Your task to perform on an android device: Open Google Image 0: 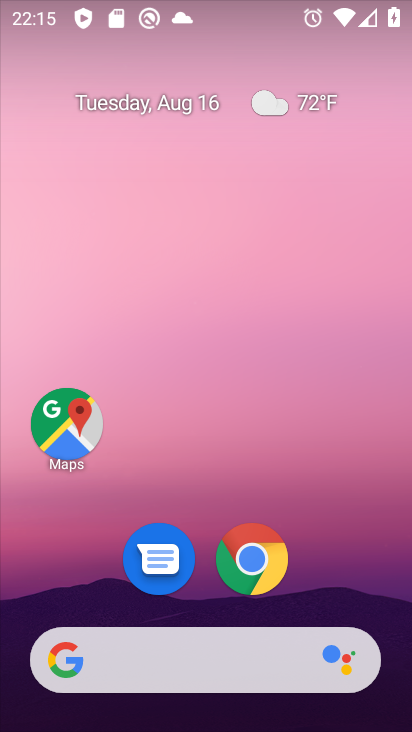
Step 0: drag from (190, 663) to (253, 102)
Your task to perform on an android device: Open Google Image 1: 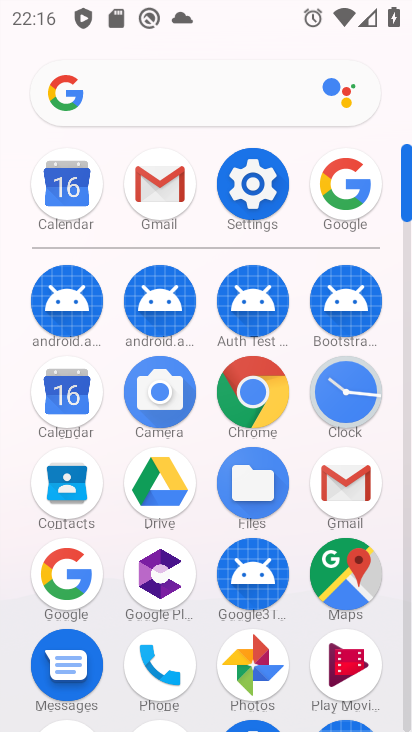
Step 1: click (339, 183)
Your task to perform on an android device: Open Google Image 2: 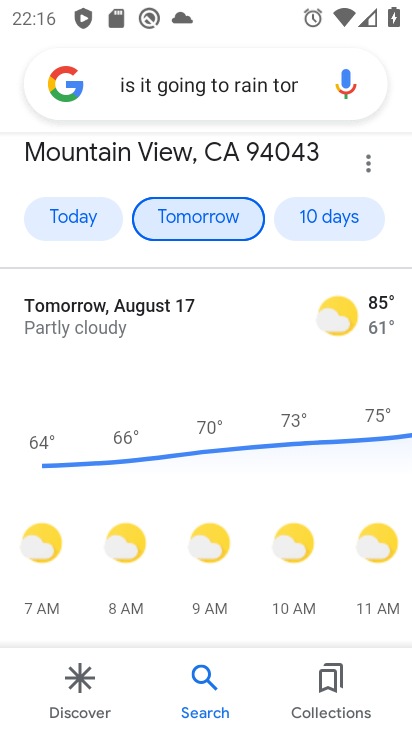
Step 2: task complete